Your task to perform on an android device: Show me productivity apps on the Play Store Image 0: 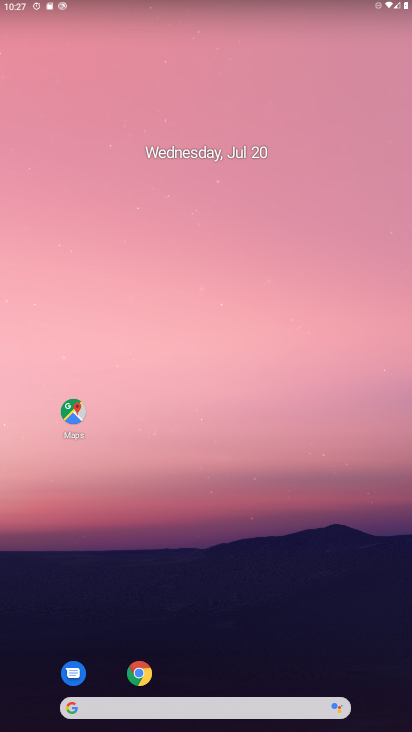
Step 0: drag from (365, 639) to (196, 99)
Your task to perform on an android device: Show me productivity apps on the Play Store Image 1: 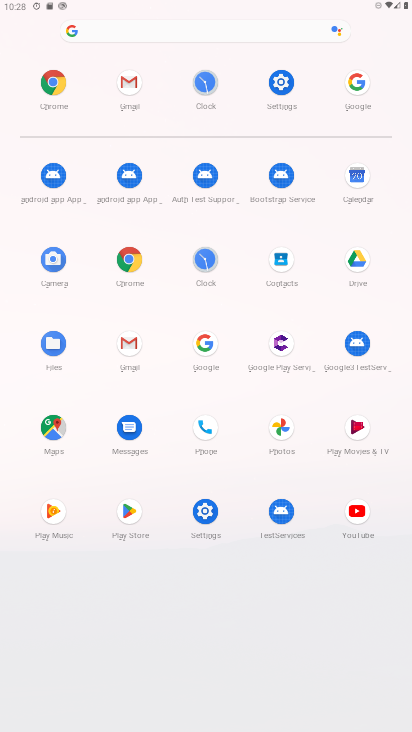
Step 1: click (118, 507)
Your task to perform on an android device: Show me productivity apps on the Play Store Image 2: 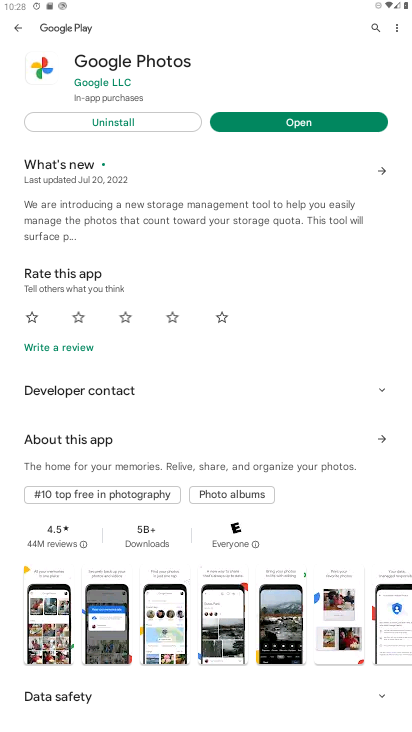
Step 2: task complete